Your task to perform on an android device: open chrome privacy settings Image 0: 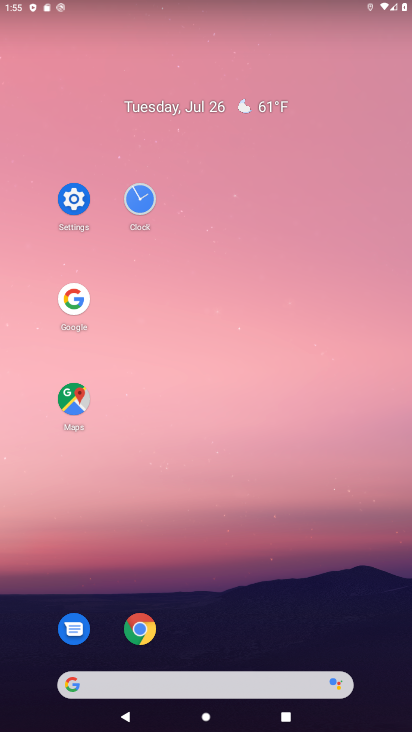
Step 0: click (148, 629)
Your task to perform on an android device: open chrome privacy settings Image 1: 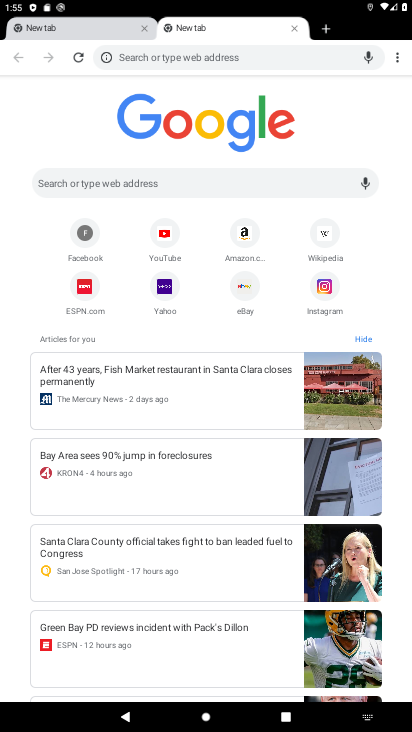
Step 1: click (400, 56)
Your task to perform on an android device: open chrome privacy settings Image 2: 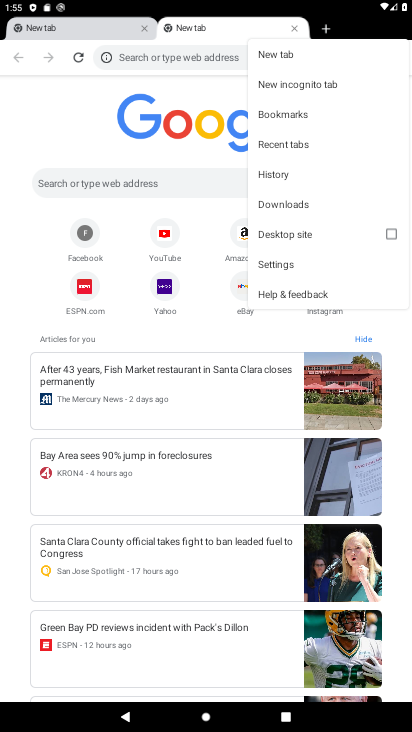
Step 2: click (316, 267)
Your task to perform on an android device: open chrome privacy settings Image 3: 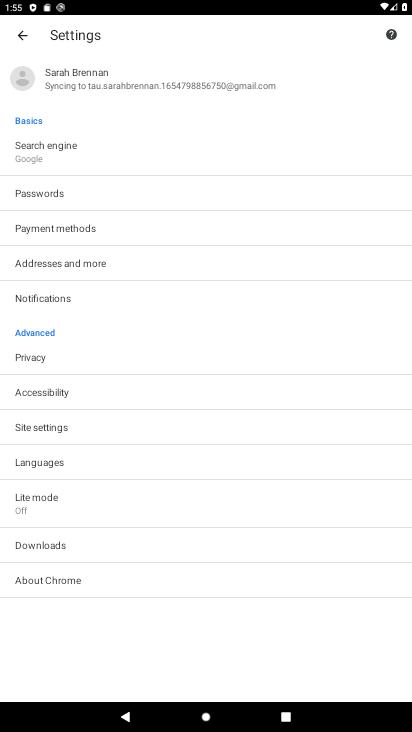
Step 3: task complete